Your task to perform on an android device: Go to accessibility settings Image 0: 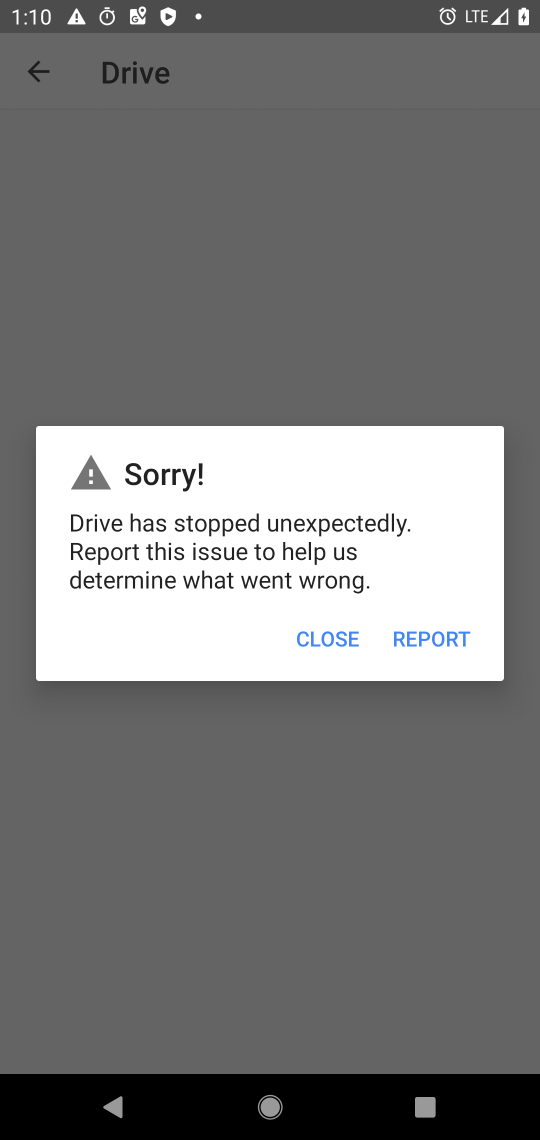
Step 0: press home button
Your task to perform on an android device: Go to accessibility settings Image 1: 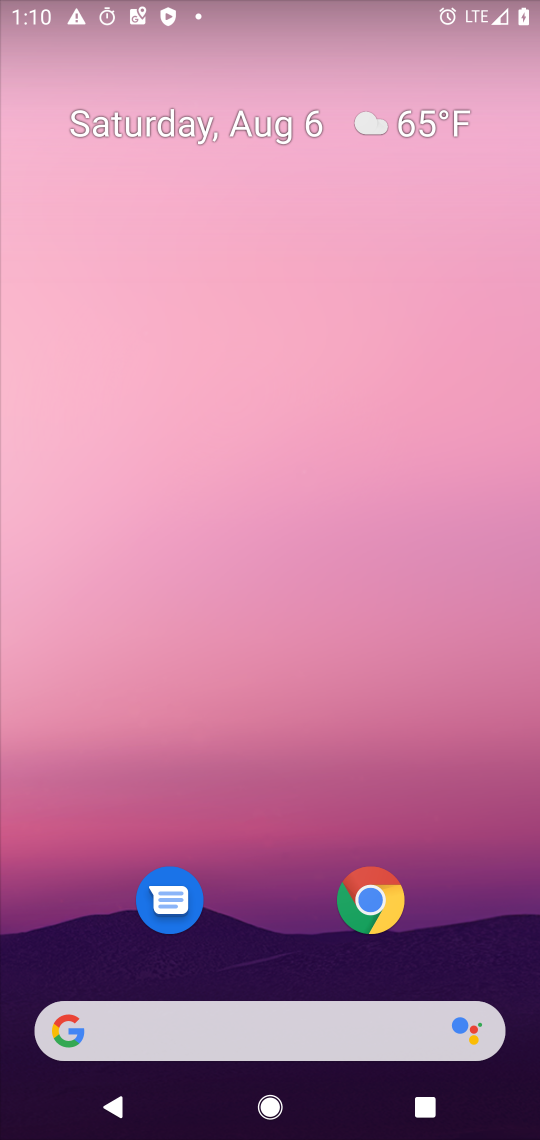
Step 1: drag from (257, 949) to (258, 76)
Your task to perform on an android device: Go to accessibility settings Image 2: 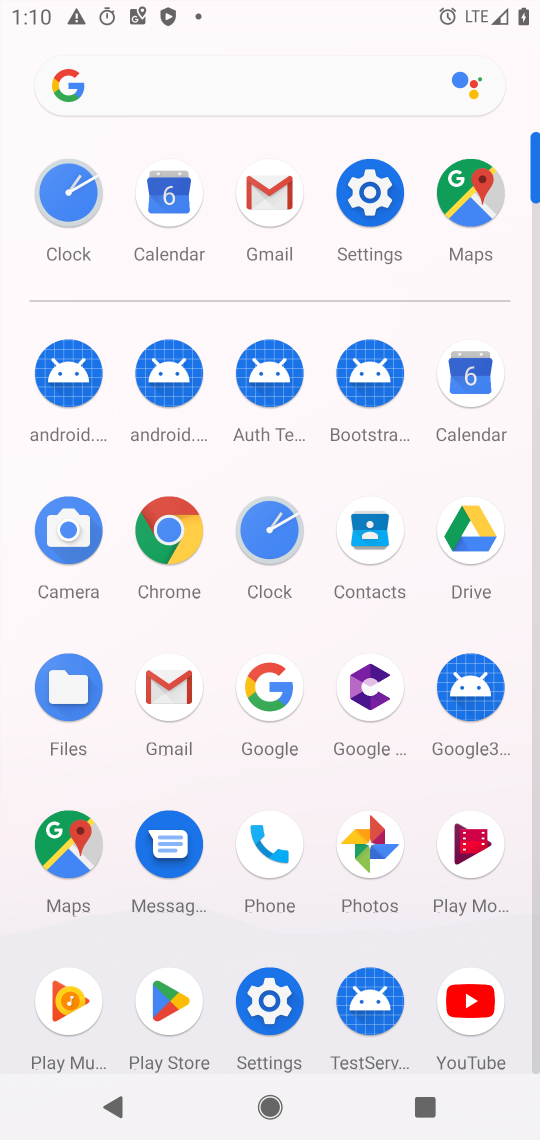
Step 2: click (361, 198)
Your task to perform on an android device: Go to accessibility settings Image 3: 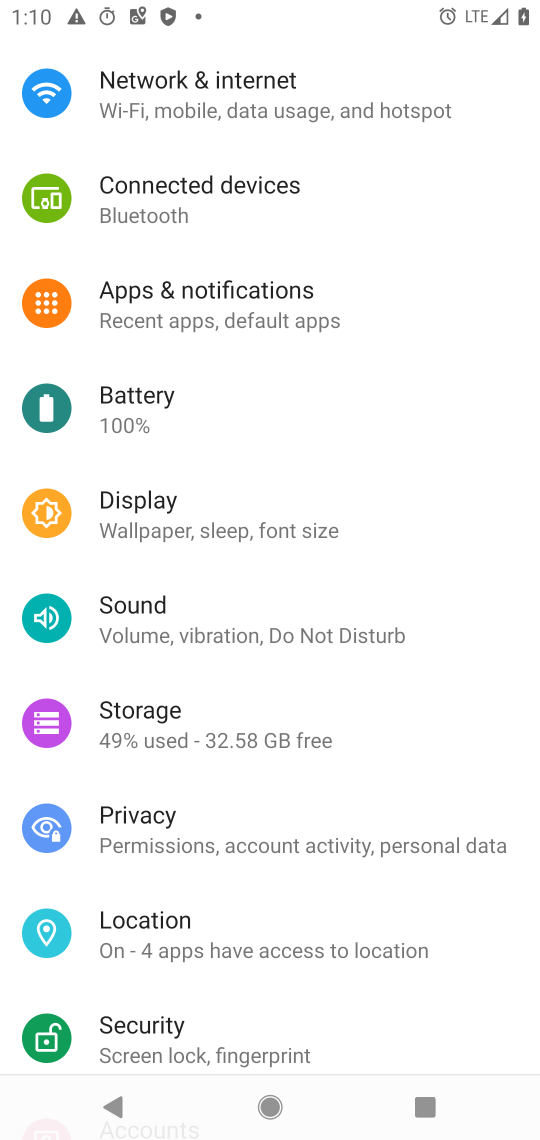
Step 3: drag from (210, 964) to (210, 544)
Your task to perform on an android device: Go to accessibility settings Image 4: 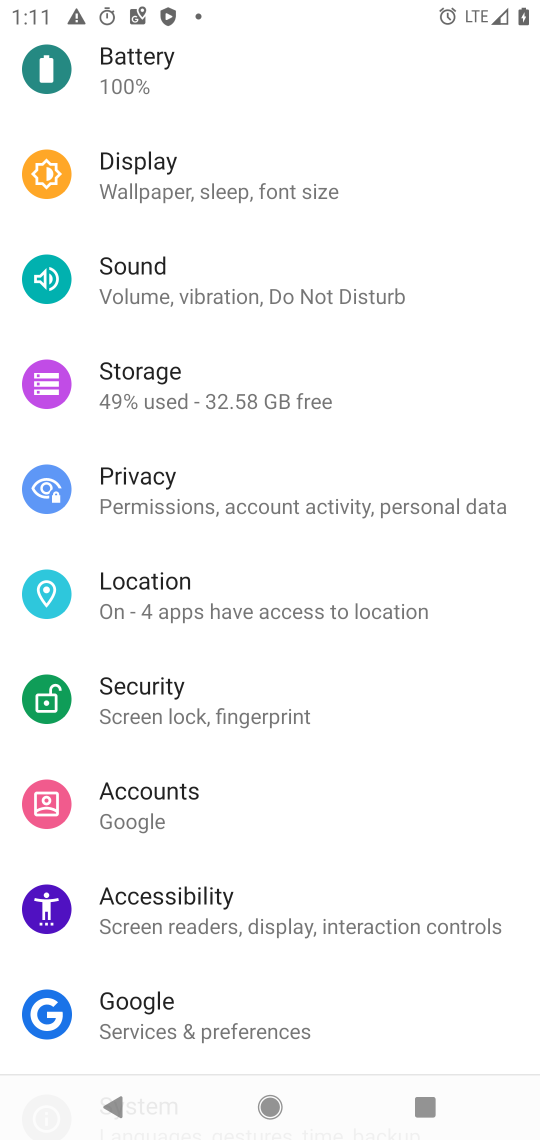
Step 4: click (166, 912)
Your task to perform on an android device: Go to accessibility settings Image 5: 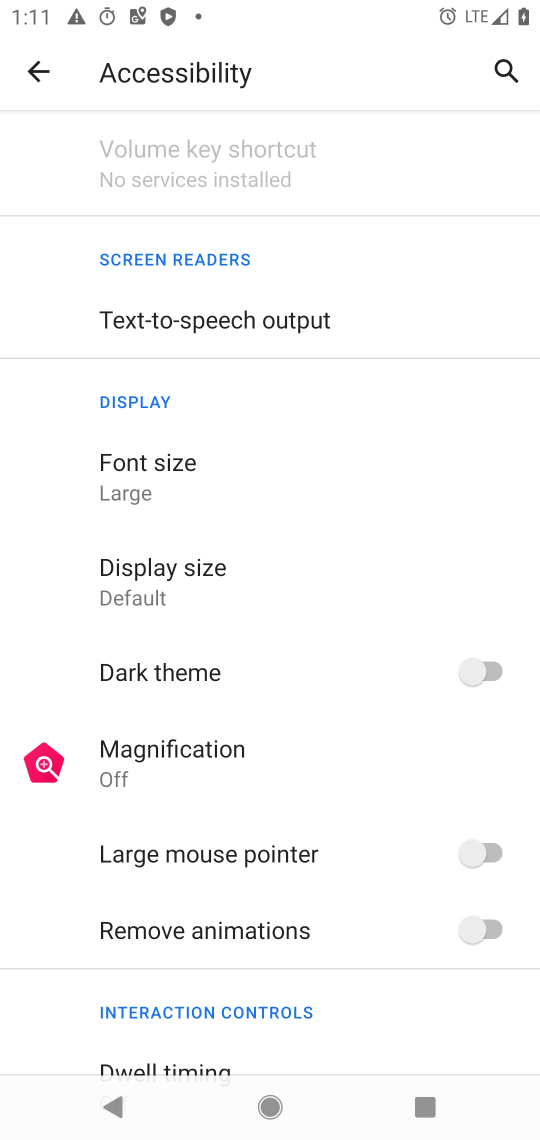
Step 5: task complete